Your task to perform on an android device: What is the recent news? Image 0: 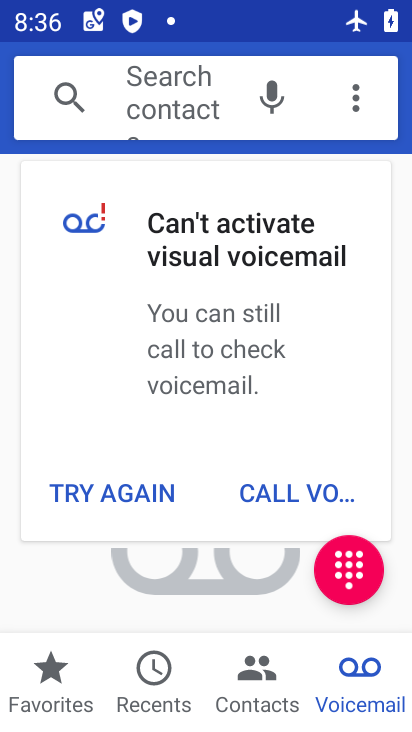
Step 0: press home button
Your task to perform on an android device: What is the recent news? Image 1: 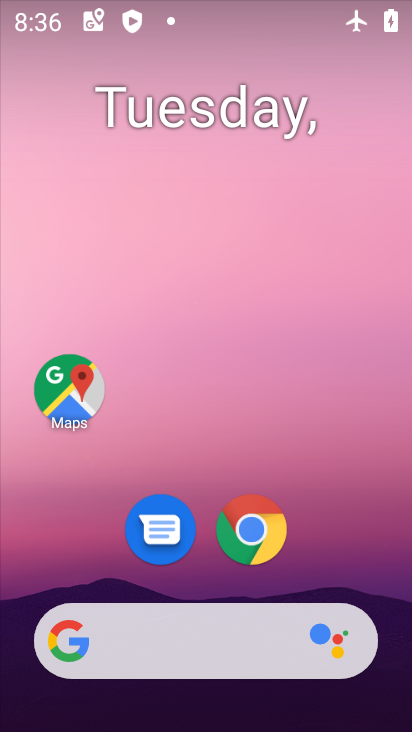
Step 1: drag from (218, 613) to (183, 175)
Your task to perform on an android device: What is the recent news? Image 2: 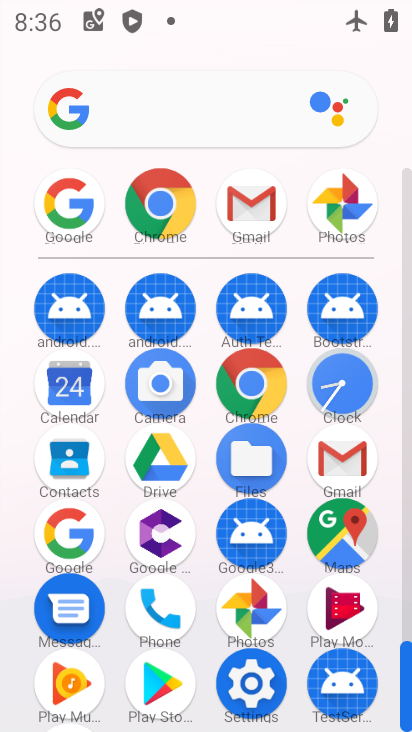
Step 2: drag from (189, 559) to (228, 214)
Your task to perform on an android device: What is the recent news? Image 3: 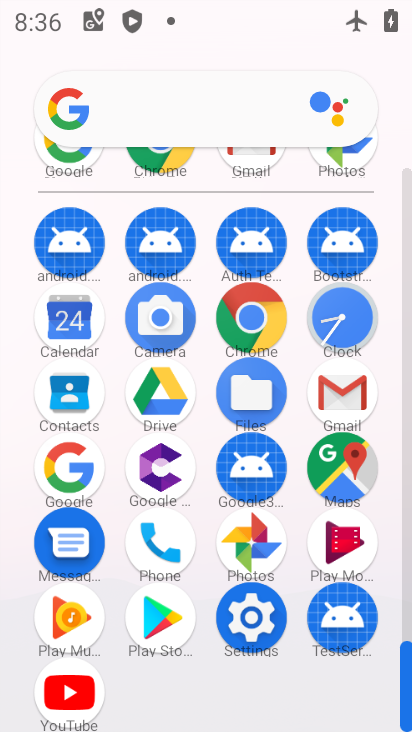
Step 3: click (77, 475)
Your task to perform on an android device: What is the recent news? Image 4: 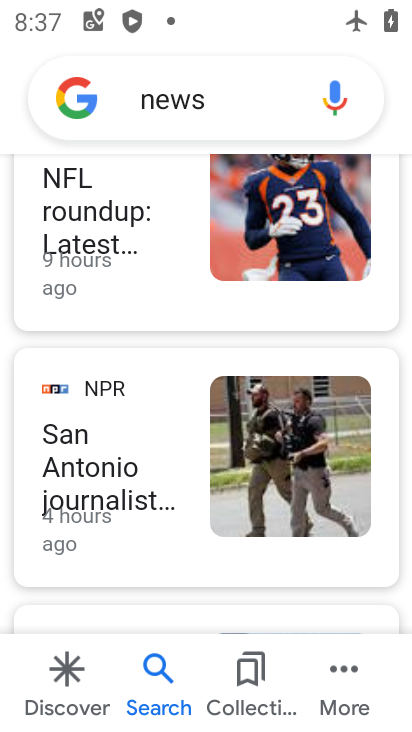
Step 4: task complete